Your task to perform on an android device: star an email in the gmail app Image 0: 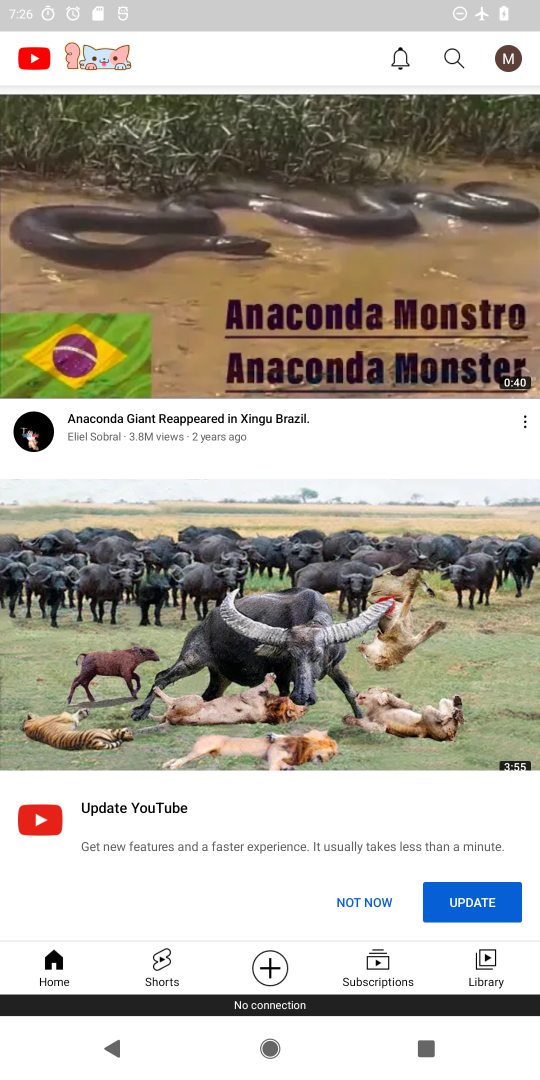
Step 0: press home button
Your task to perform on an android device: star an email in the gmail app Image 1: 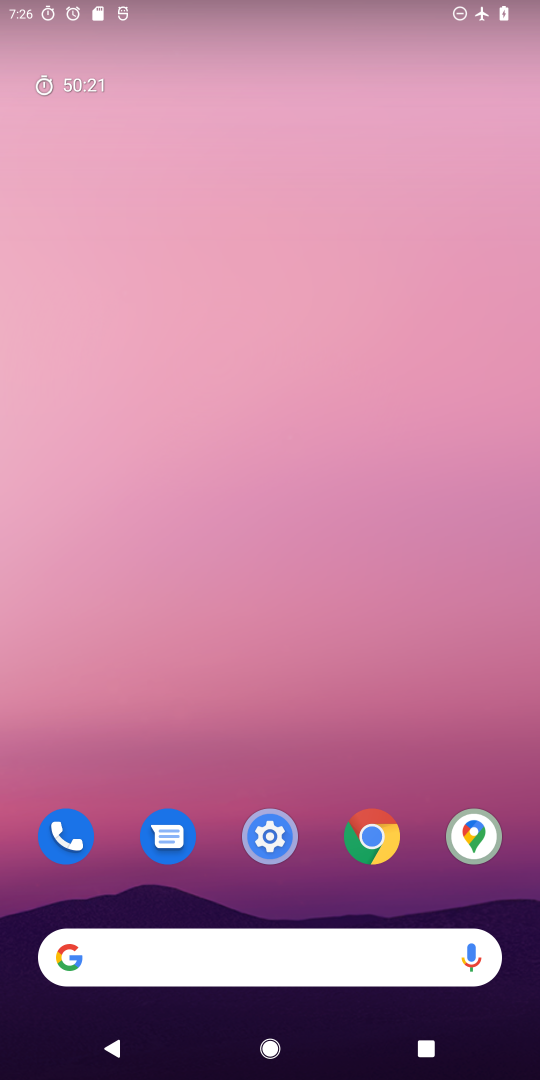
Step 1: drag from (329, 737) to (346, 31)
Your task to perform on an android device: star an email in the gmail app Image 2: 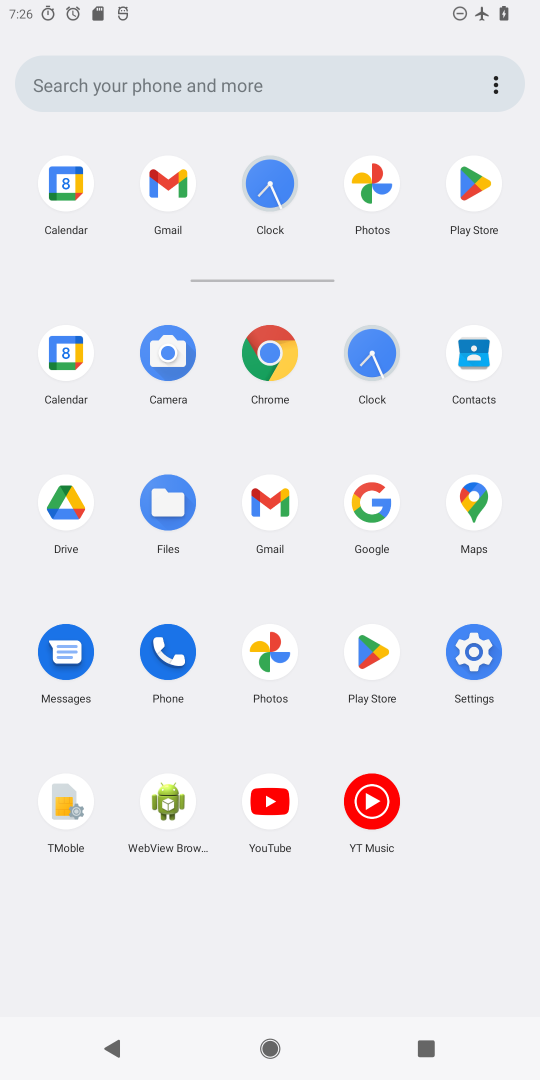
Step 2: click (273, 524)
Your task to perform on an android device: star an email in the gmail app Image 3: 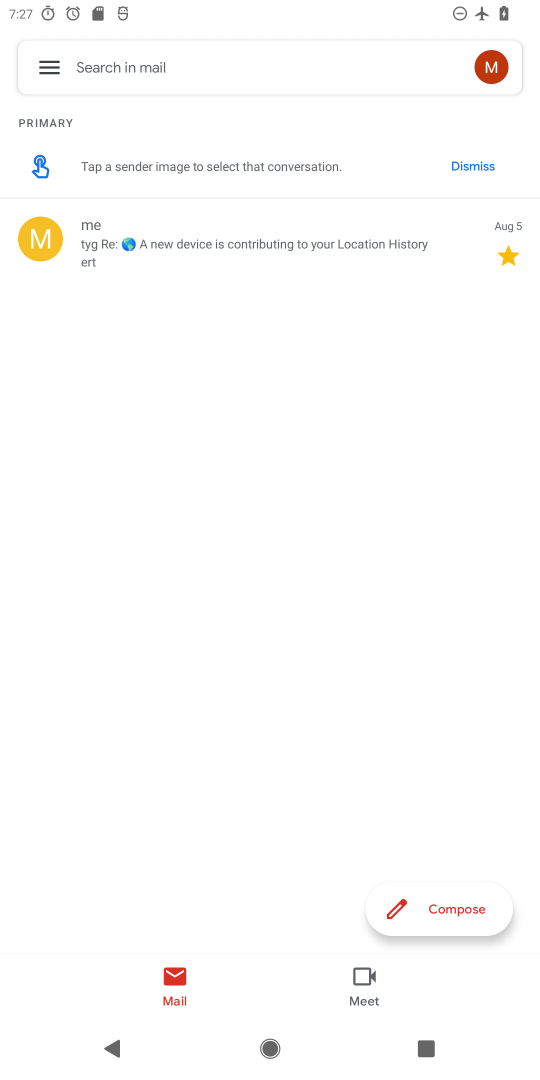
Step 3: click (54, 55)
Your task to perform on an android device: star an email in the gmail app Image 4: 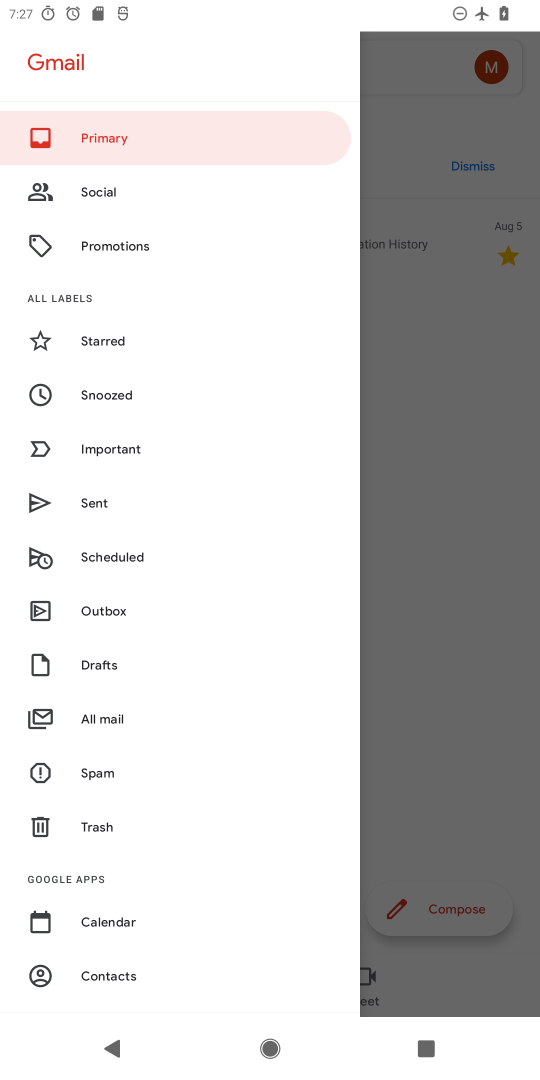
Step 4: click (141, 724)
Your task to perform on an android device: star an email in the gmail app Image 5: 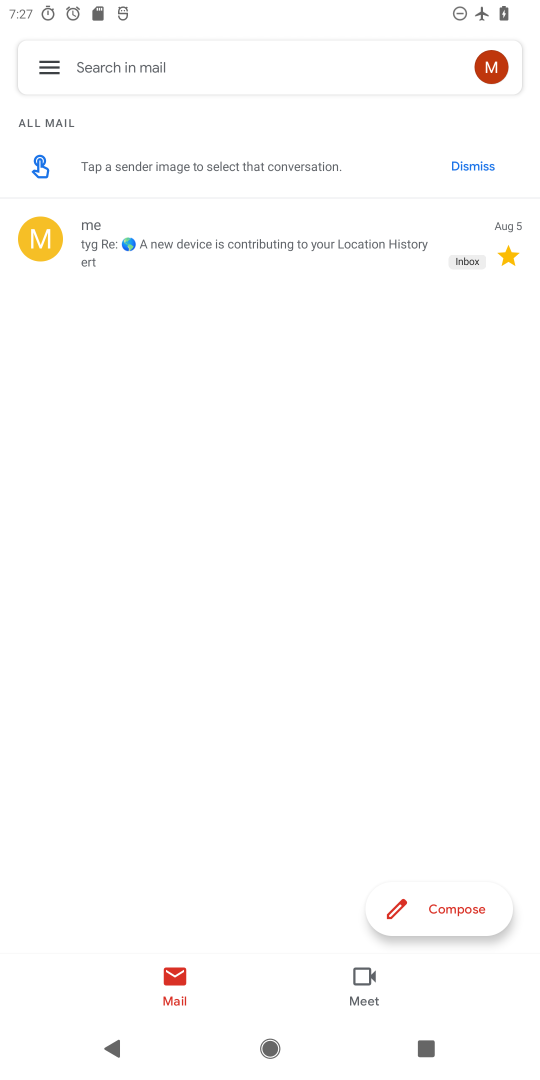
Step 5: task complete